Your task to perform on an android device: toggle notifications settings in the gmail app Image 0: 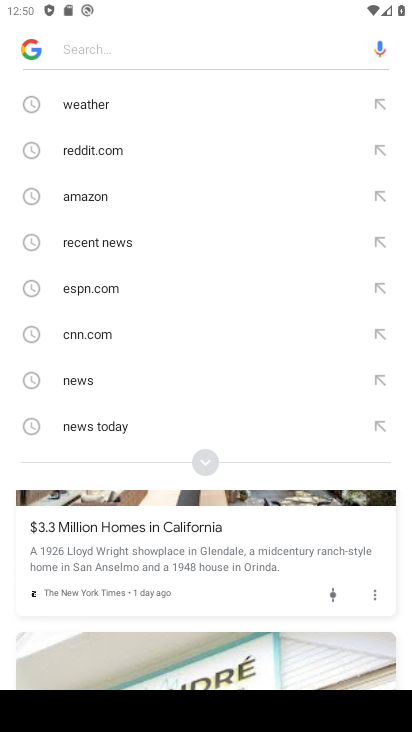
Step 0: press home button
Your task to perform on an android device: toggle notifications settings in the gmail app Image 1: 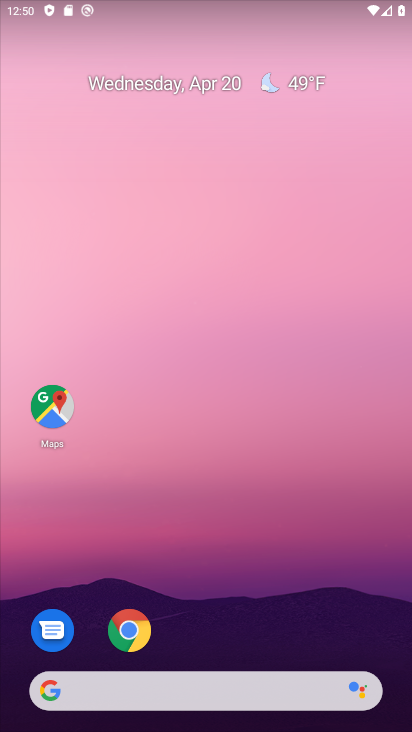
Step 1: drag from (313, 520) to (313, 175)
Your task to perform on an android device: toggle notifications settings in the gmail app Image 2: 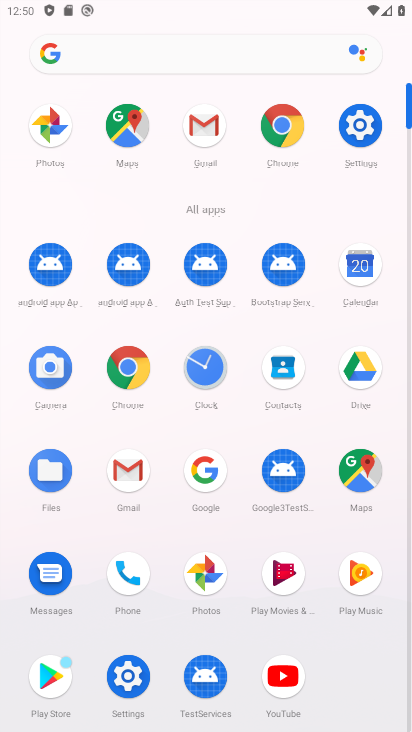
Step 2: click (120, 481)
Your task to perform on an android device: toggle notifications settings in the gmail app Image 3: 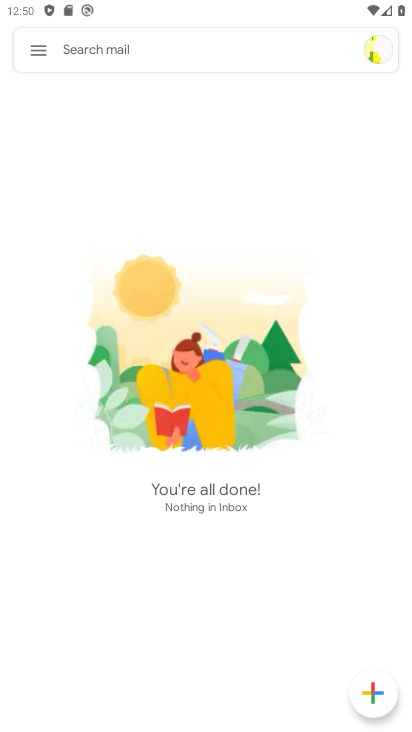
Step 3: click (38, 52)
Your task to perform on an android device: toggle notifications settings in the gmail app Image 4: 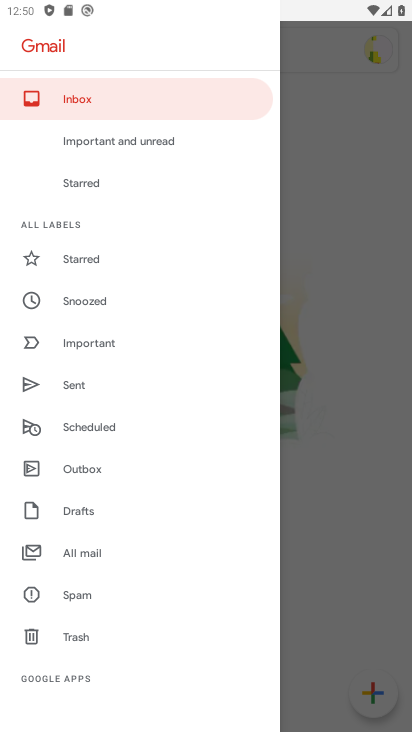
Step 4: drag from (84, 645) to (115, 205)
Your task to perform on an android device: toggle notifications settings in the gmail app Image 5: 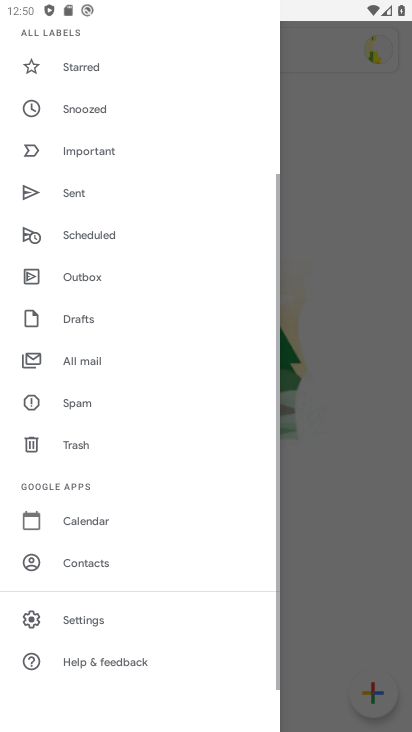
Step 5: click (95, 624)
Your task to perform on an android device: toggle notifications settings in the gmail app Image 6: 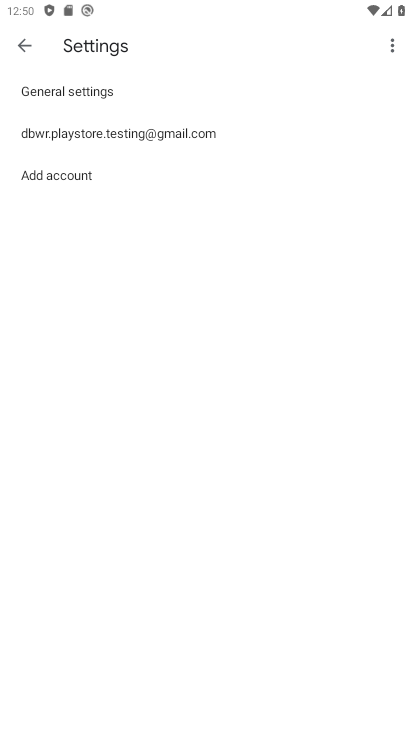
Step 6: click (83, 134)
Your task to perform on an android device: toggle notifications settings in the gmail app Image 7: 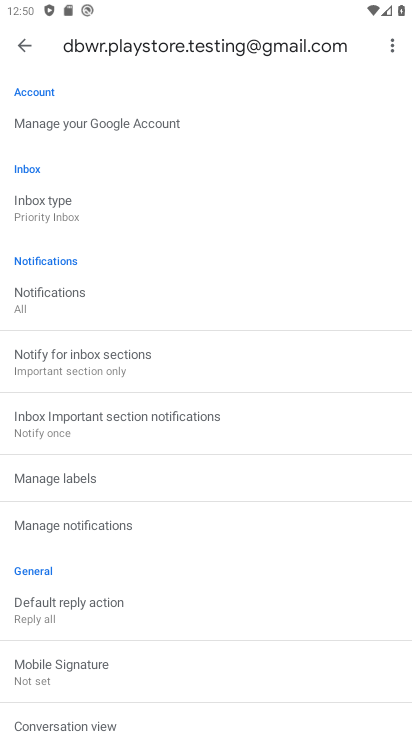
Step 7: click (82, 291)
Your task to perform on an android device: toggle notifications settings in the gmail app Image 8: 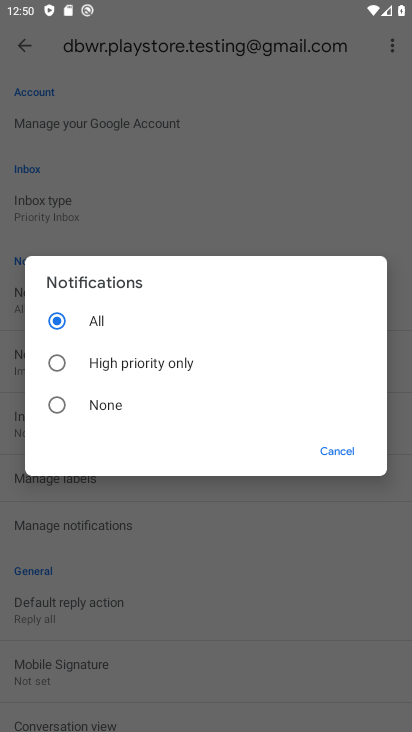
Step 8: click (115, 358)
Your task to perform on an android device: toggle notifications settings in the gmail app Image 9: 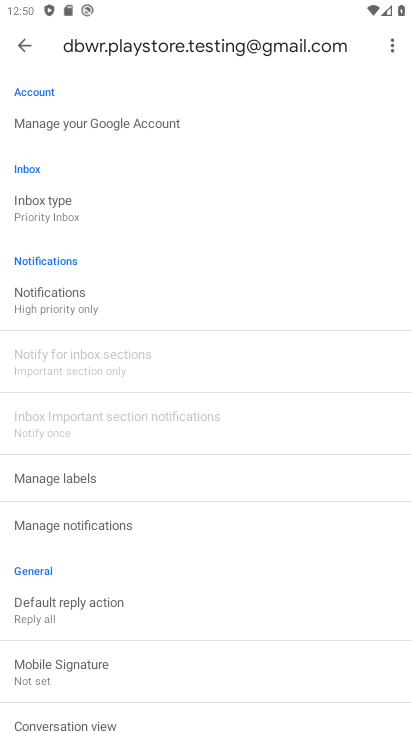
Step 9: task complete